Your task to perform on an android device: allow notifications from all sites in the chrome app Image 0: 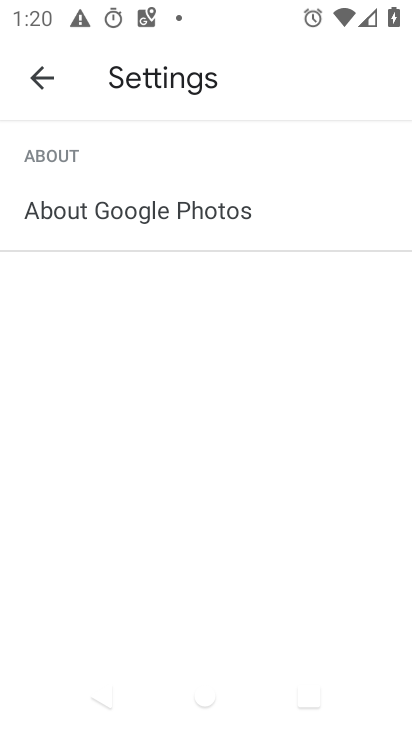
Step 0: press back button
Your task to perform on an android device: allow notifications from all sites in the chrome app Image 1: 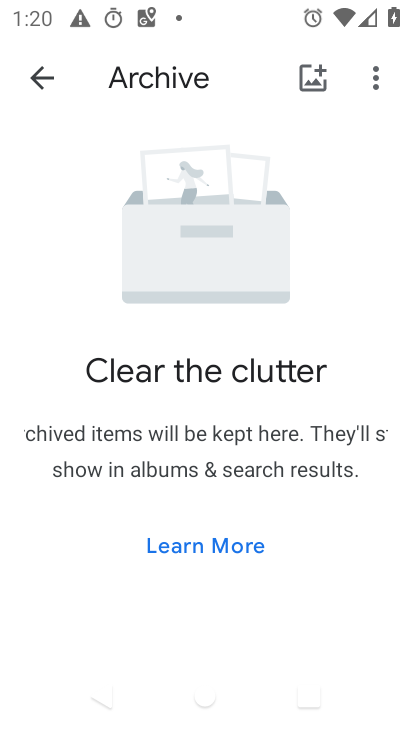
Step 1: press back button
Your task to perform on an android device: allow notifications from all sites in the chrome app Image 2: 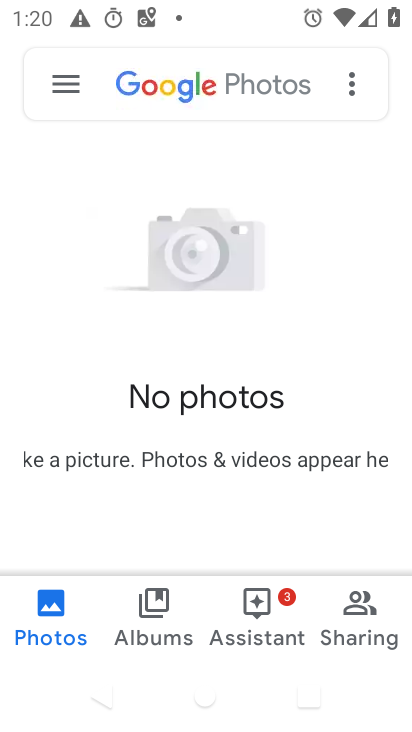
Step 2: press back button
Your task to perform on an android device: allow notifications from all sites in the chrome app Image 3: 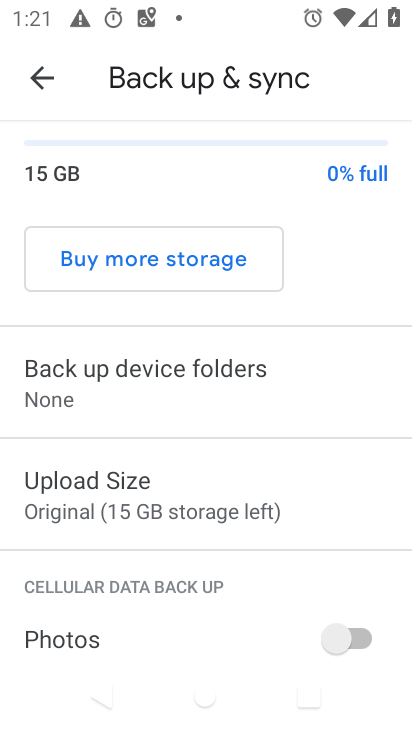
Step 3: press back button
Your task to perform on an android device: allow notifications from all sites in the chrome app Image 4: 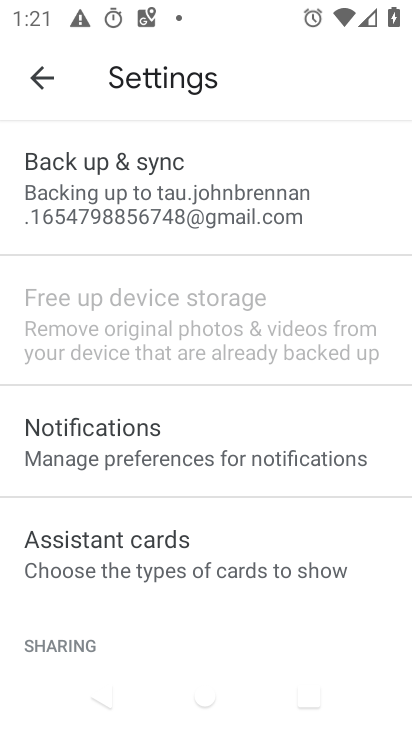
Step 4: drag from (186, 592) to (254, 237)
Your task to perform on an android device: allow notifications from all sites in the chrome app Image 5: 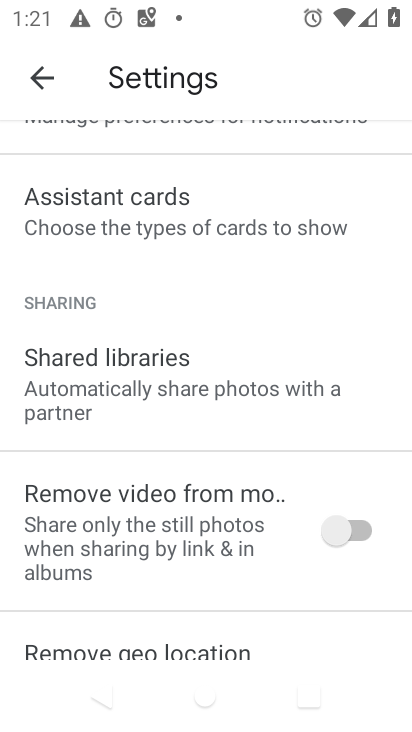
Step 5: drag from (220, 217) to (220, 724)
Your task to perform on an android device: allow notifications from all sites in the chrome app Image 6: 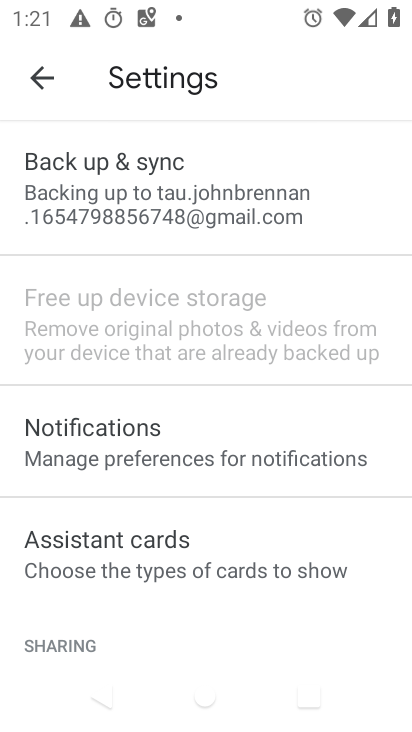
Step 6: click (33, 69)
Your task to perform on an android device: allow notifications from all sites in the chrome app Image 7: 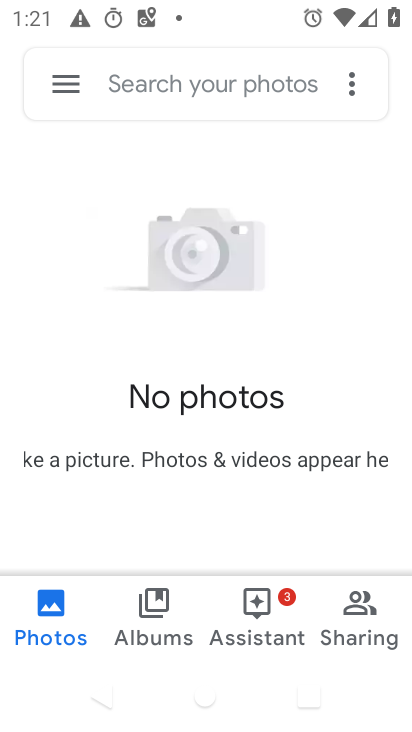
Step 7: press back button
Your task to perform on an android device: allow notifications from all sites in the chrome app Image 8: 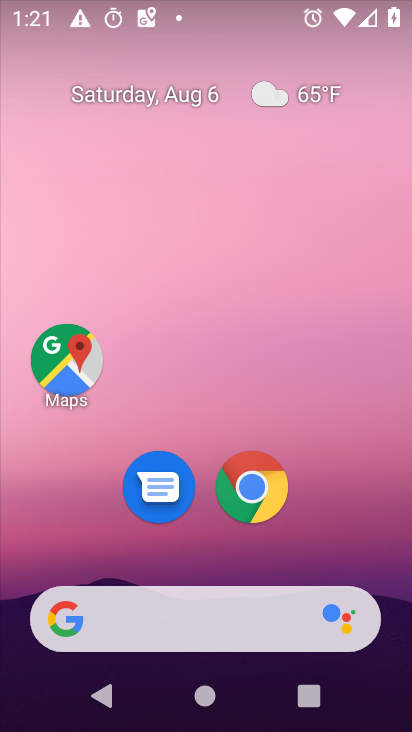
Step 8: drag from (241, 466) to (274, 96)
Your task to perform on an android device: allow notifications from all sites in the chrome app Image 9: 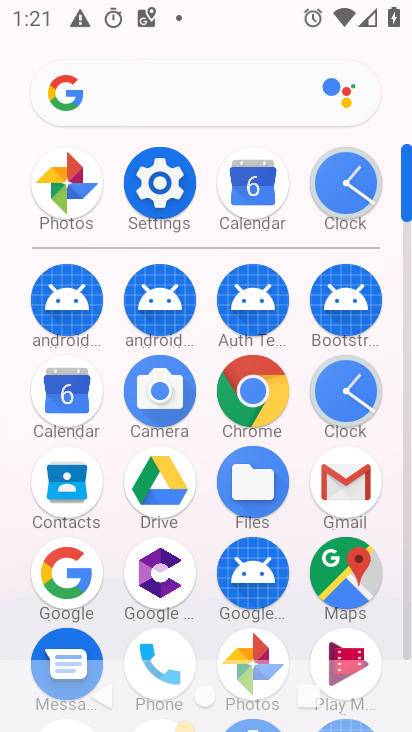
Step 9: click (274, 395)
Your task to perform on an android device: allow notifications from all sites in the chrome app Image 10: 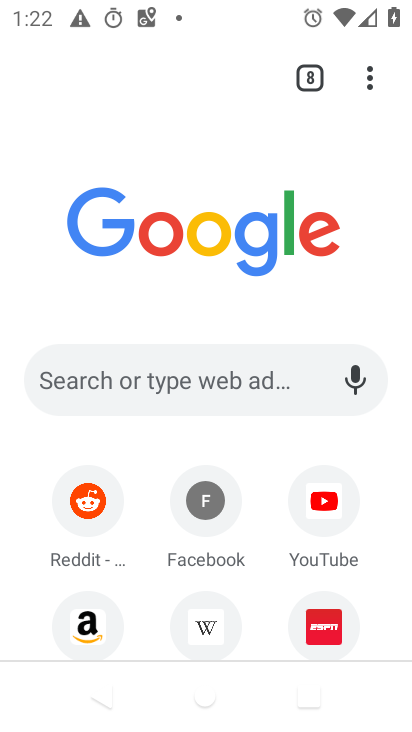
Step 10: drag from (365, 70) to (117, 541)
Your task to perform on an android device: allow notifications from all sites in the chrome app Image 11: 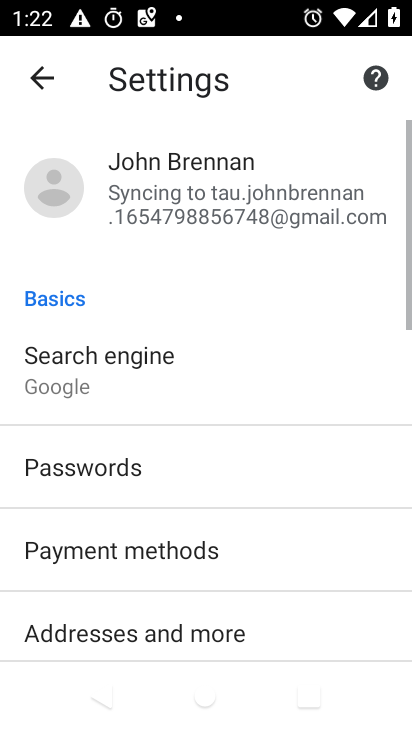
Step 11: drag from (196, 577) to (238, 91)
Your task to perform on an android device: allow notifications from all sites in the chrome app Image 12: 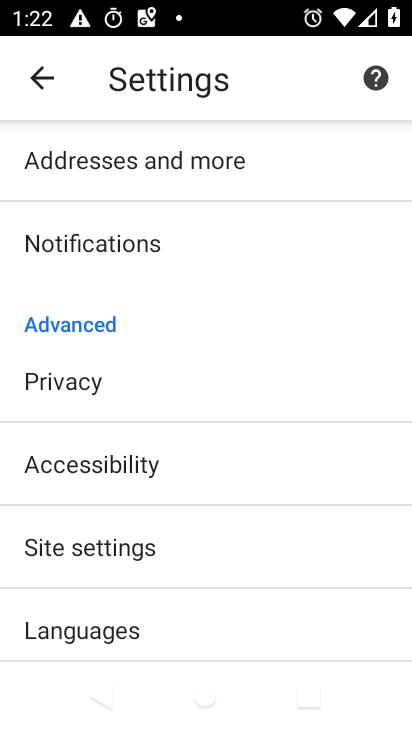
Step 12: drag from (152, 647) to (231, 244)
Your task to perform on an android device: allow notifications from all sites in the chrome app Image 13: 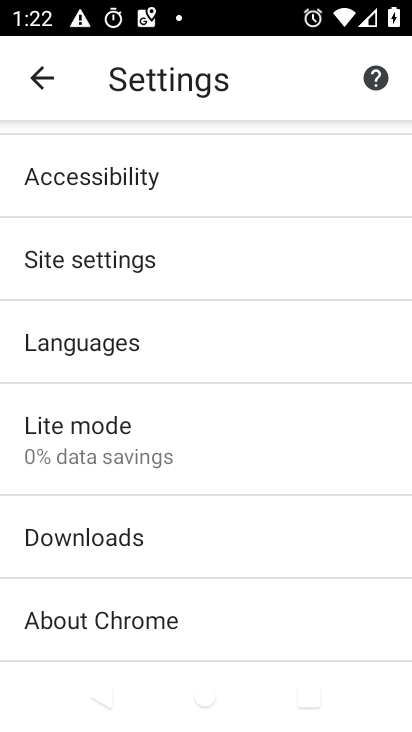
Step 13: click (119, 260)
Your task to perform on an android device: allow notifications from all sites in the chrome app Image 14: 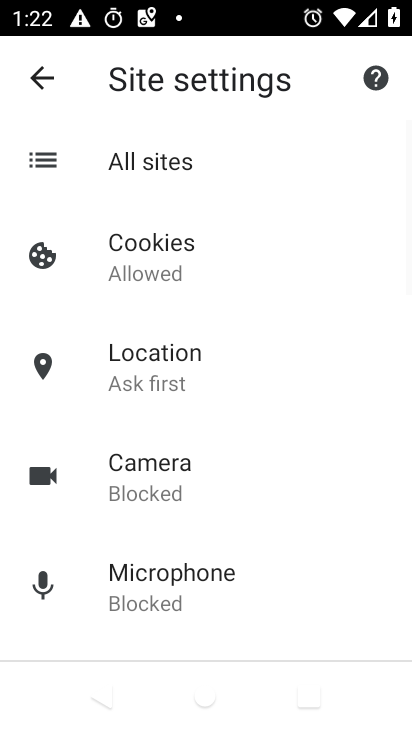
Step 14: drag from (168, 586) to (231, 123)
Your task to perform on an android device: allow notifications from all sites in the chrome app Image 15: 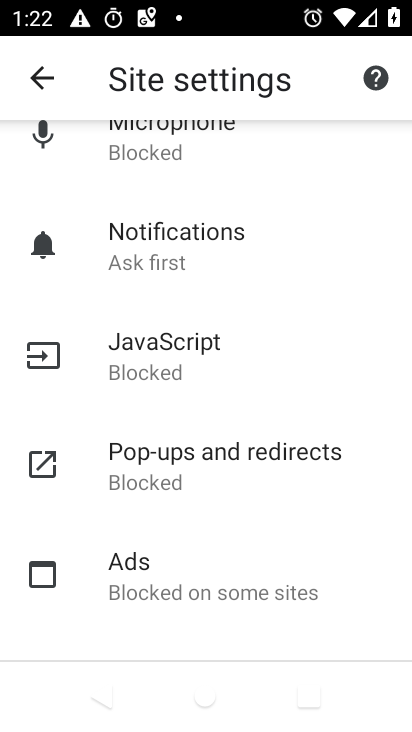
Step 15: click (169, 244)
Your task to perform on an android device: allow notifications from all sites in the chrome app Image 16: 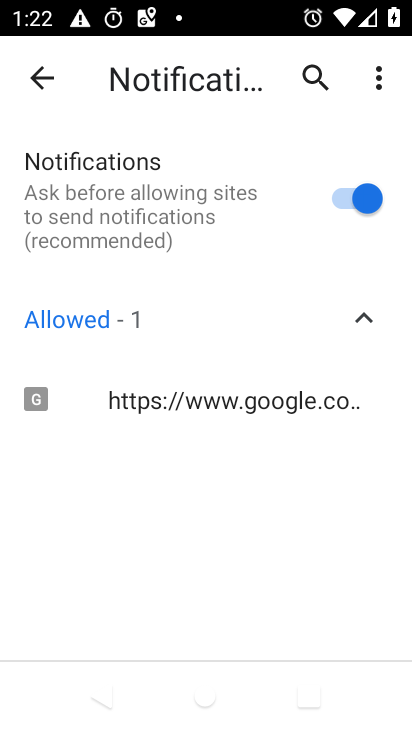
Step 16: task complete